Your task to perform on an android device: Open the phone app and click the voicemail tab. Image 0: 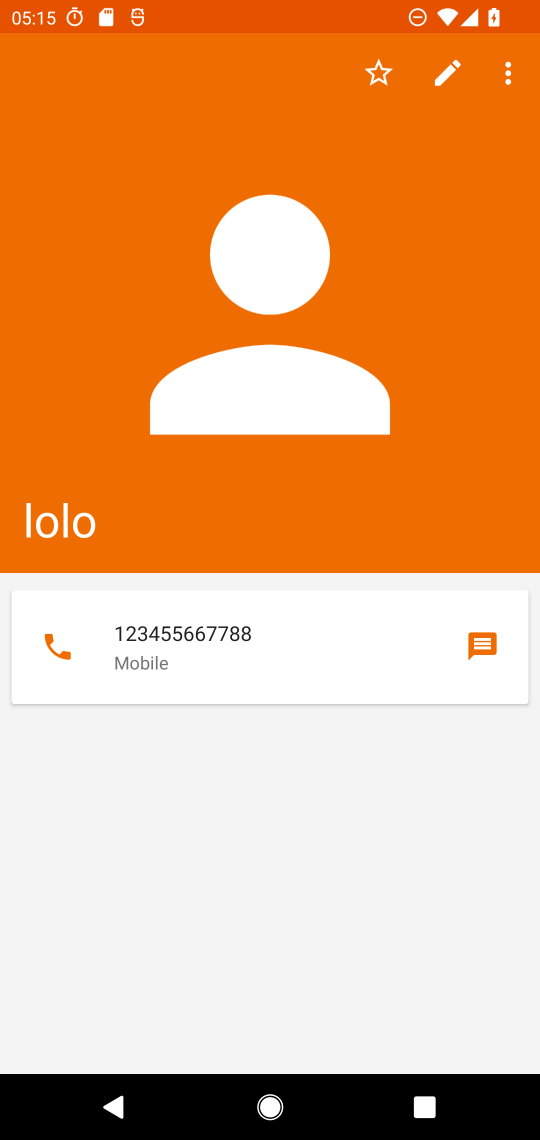
Step 0: press home button
Your task to perform on an android device: Open the phone app and click the voicemail tab. Image 1: 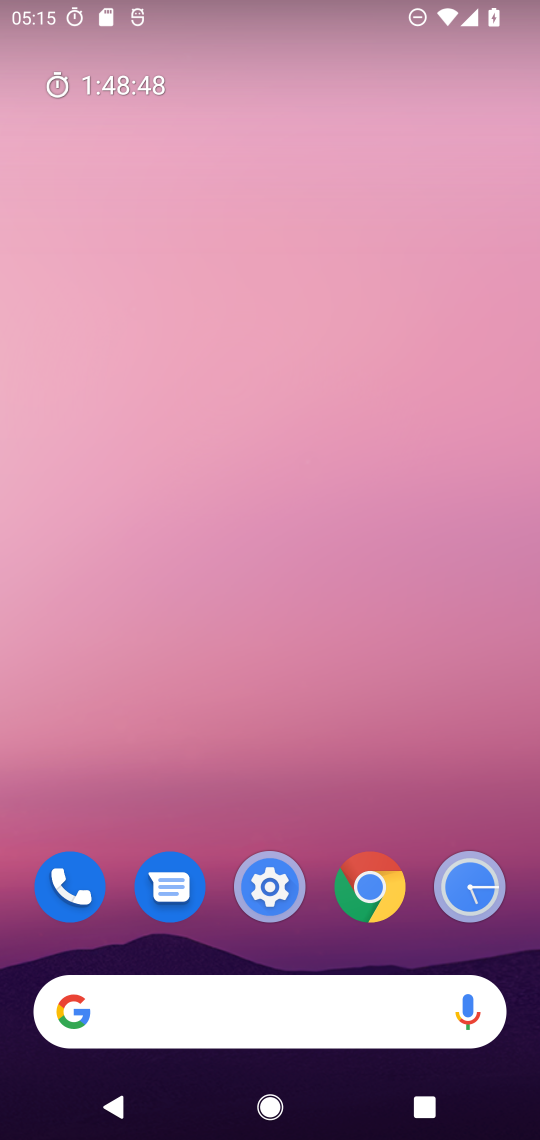
Step 1: drag from (425, 803) to (434, 319)
Your task to perform on an android device: Open the phone app and click the voicemail tab. Image 2: 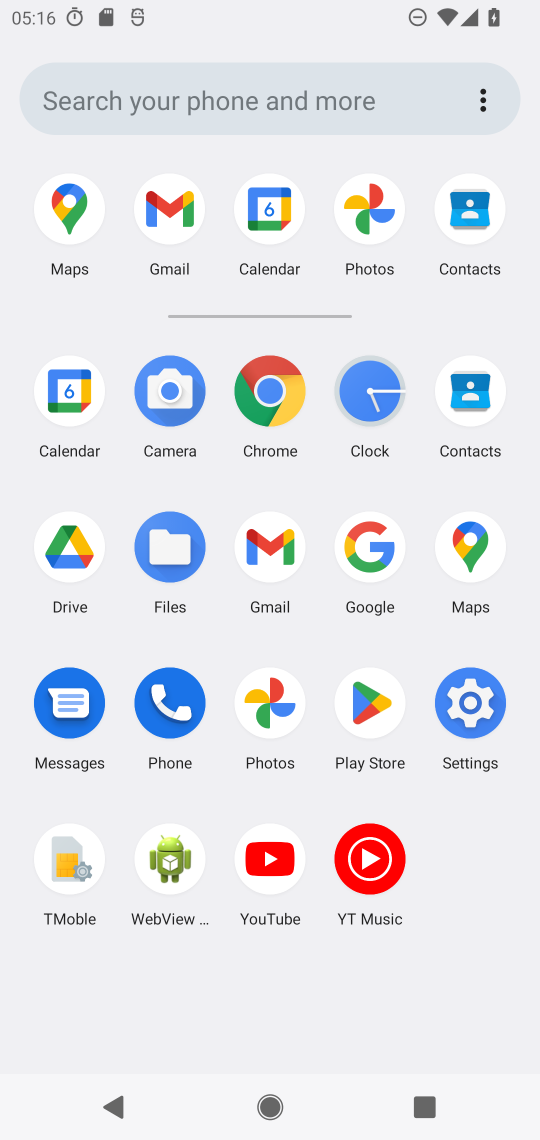
Step 2: click (169, 711)
Your task to perform on an android device: Open the phone app and click the voicemail tab. Image 3: 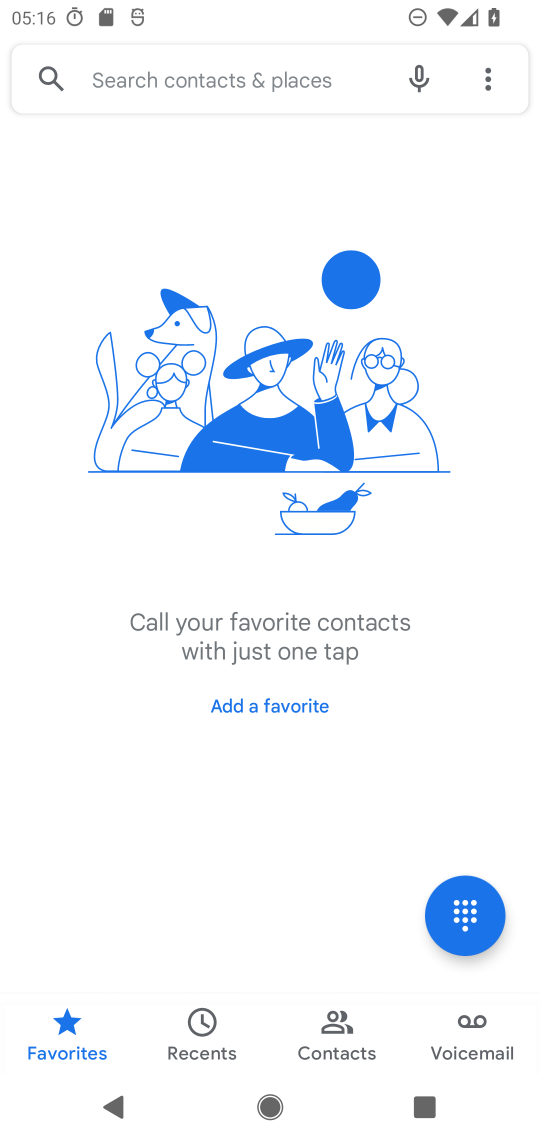
Step 3: click (446, 1034)
Your task to perform on an android device: Open the phone app and click the voicemail tab. Image 4: 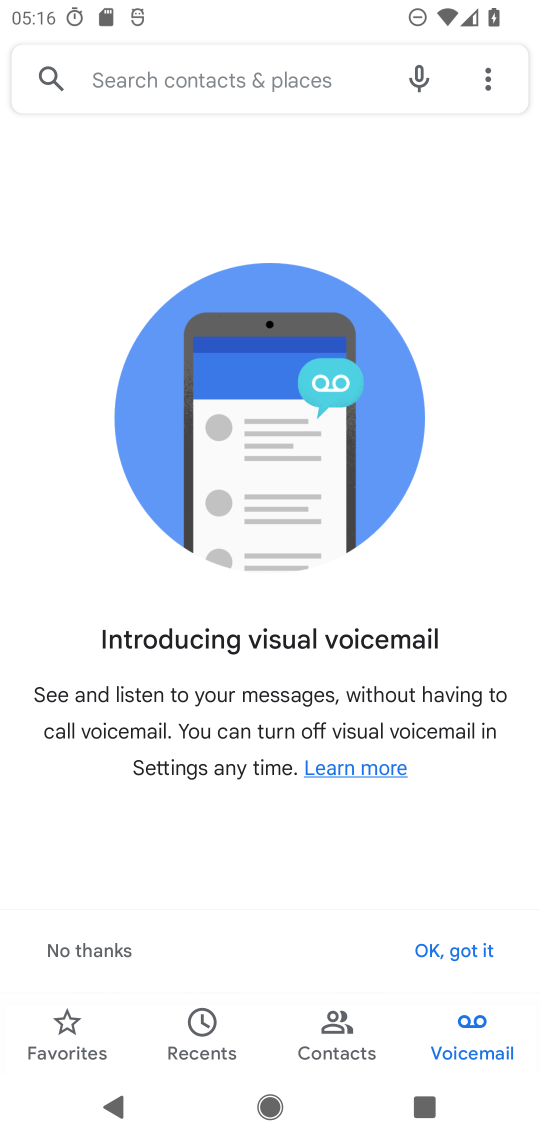
Step 4: task complete